Your task to perform on an android device: Go to Wikipedia Image 0: 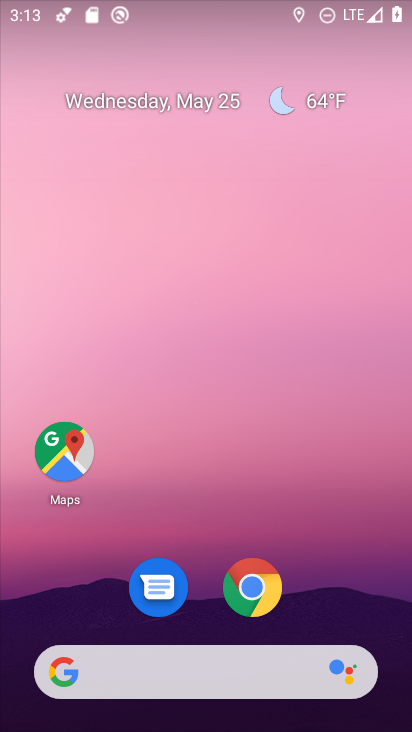
Step 0: drag from (371, 619) to (284, 109)
Your task to perform on an android device: Go to Wikipedia Image 1: 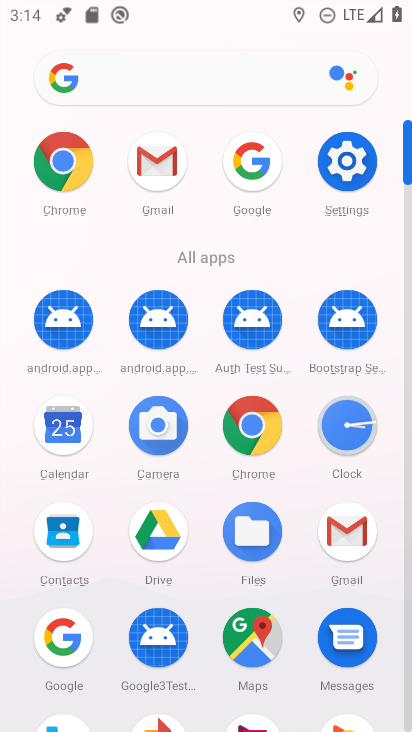
Step 1: click (75, 149)
Your task to perform on an android device: Go to Wikipedia Image 2: 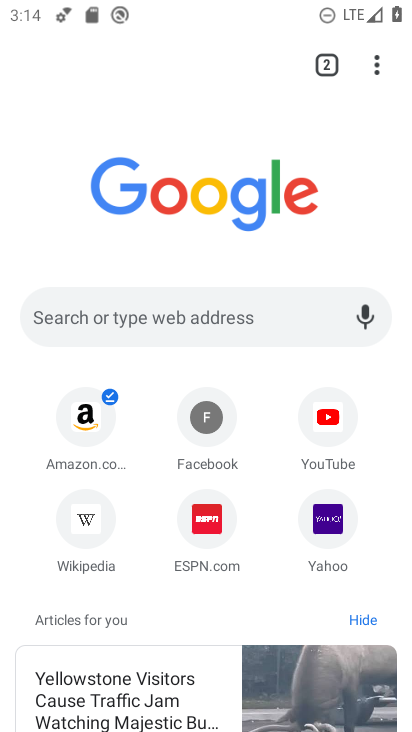
Step 2: click (89, 521)
Your task to perform on an android device: Go to Wikipedia Image 3: 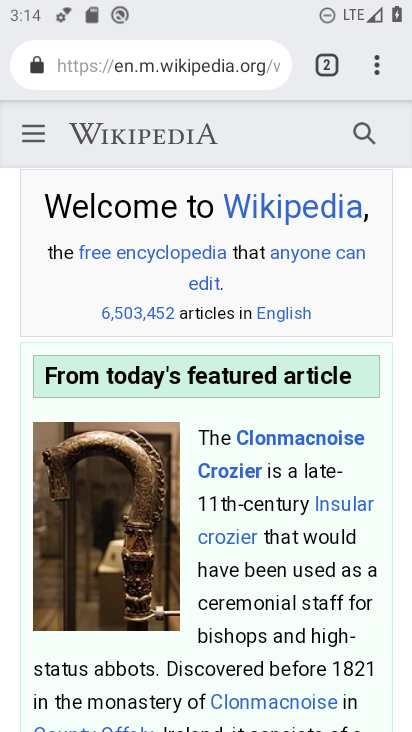
Step 3: task complete